Your task to perform on an android device: What is the recent news? Image 0: 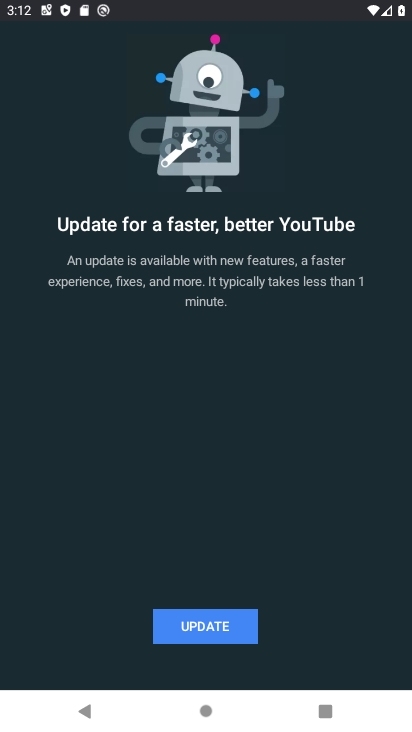
Step 0: press home button
Your task to perform on an android device: What is the recent news? Image 1: 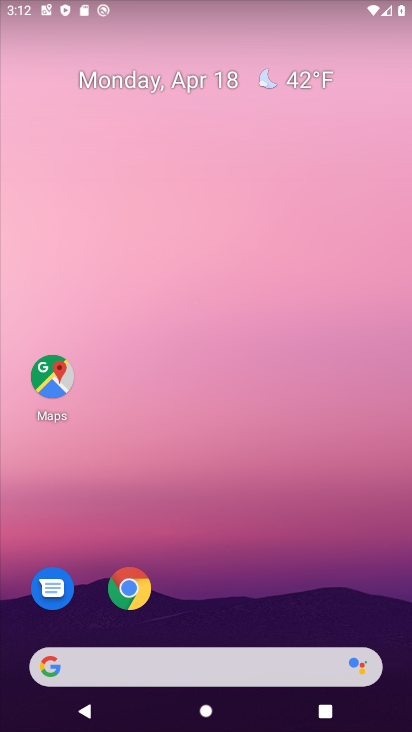
Step 1: click (51, 666)
Your task to perform on an android device: What is the recent news? Image 2: 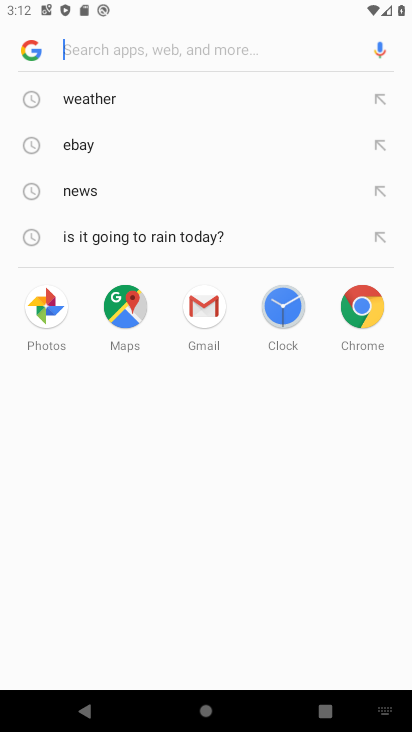
Step 2: click (32, 66)
Your task to perform on an android device: What is the recent news? Image 3: 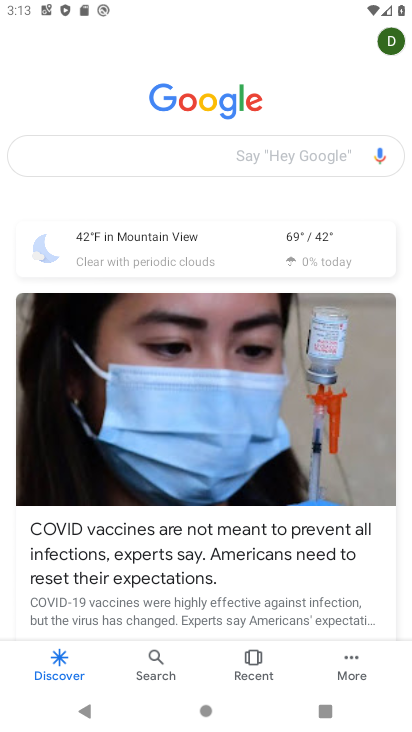
Step 3: task complete